Your task to perform on an android device: see tabs open on other devices in the chrome app Image 0: 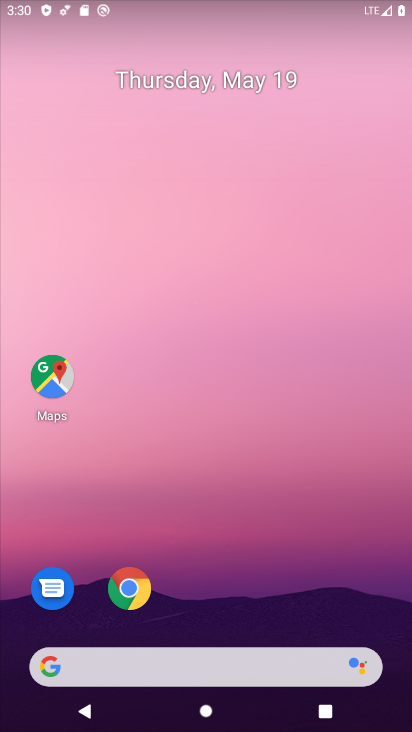
Step 0: drag from (245, 677) to (252, 178)
Your task to perform on an android device: see tabs open on other devices in the chrome app Image 1: 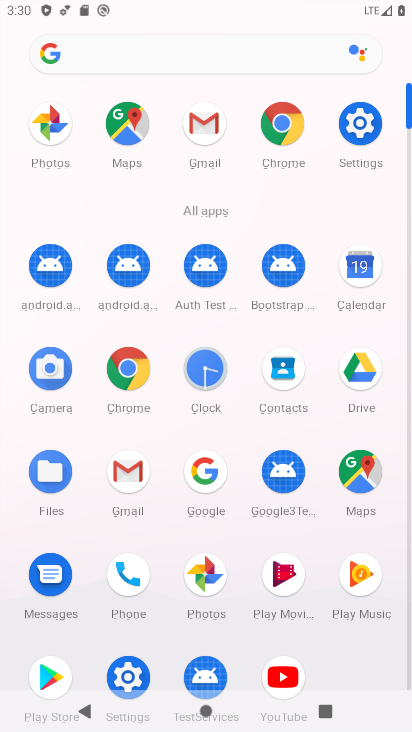
Step 1: click (127, 360)
Your task to perform on an android device: see tabs open on other devices in the chrome app Image 2: 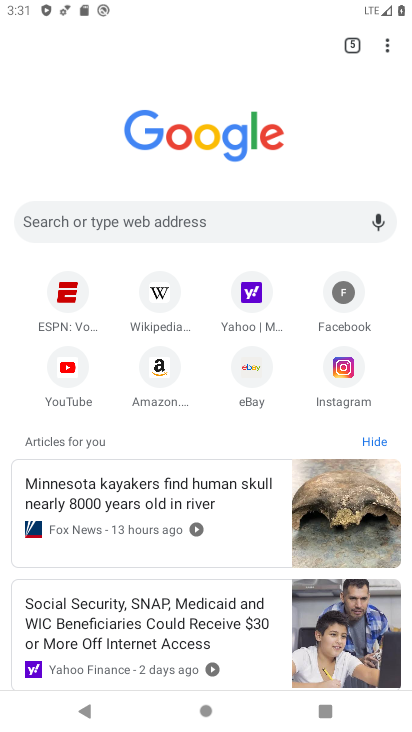
Step 2: click (350, 51)
Your task to perform on an android device: see tabs open on other devices in the chrome app Image 3: 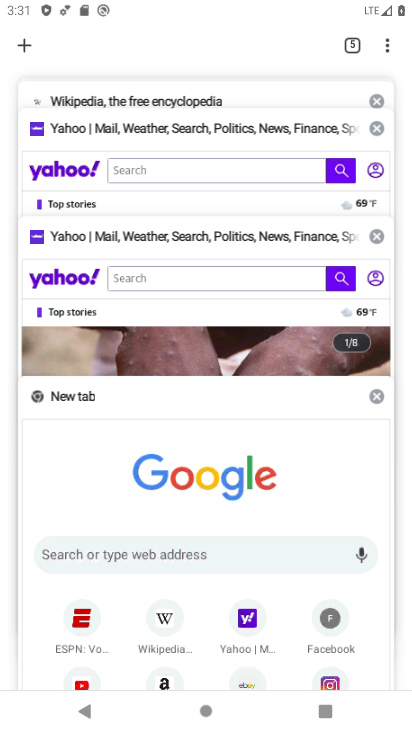
Step 3: click (16, 46)
Your task to perform on an android device: see tabs open on other devices in the chrome app Image 4: 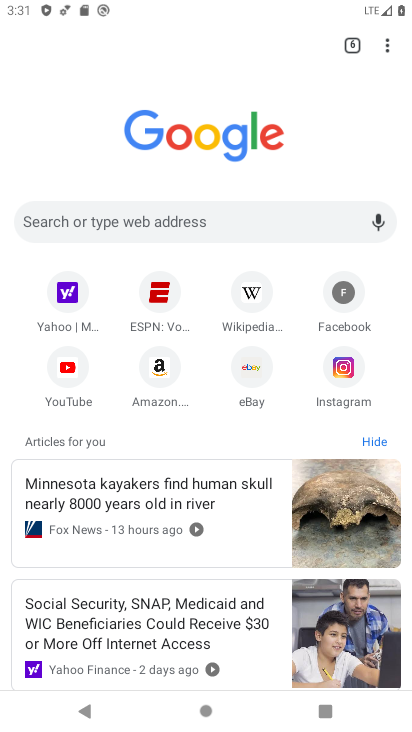
Step 4: task complete